Your task to perform on an android device: Open Google Chrome Image 0: 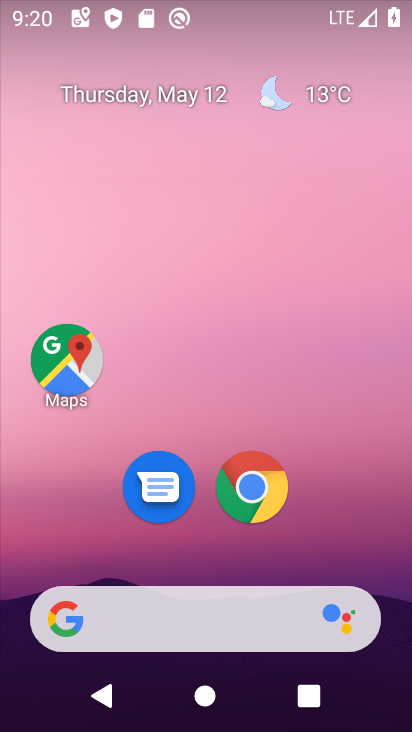
Step 0: click (252, 500)
Your task to perform on an android device: Open Google Chrome Image 1: 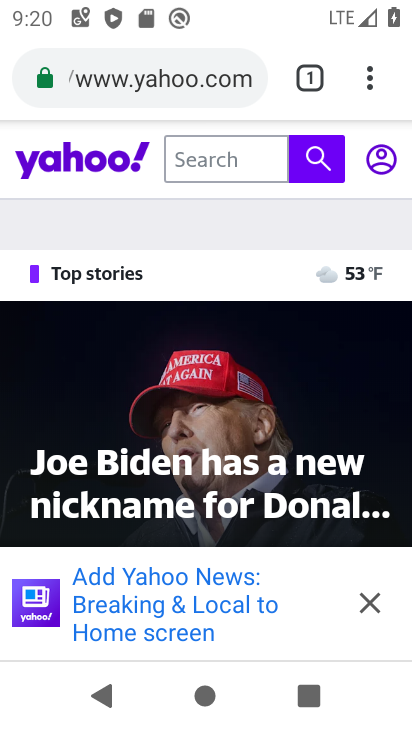
Step 1: task complete